Your task to perform on an android device: Open internet settings Image 0: 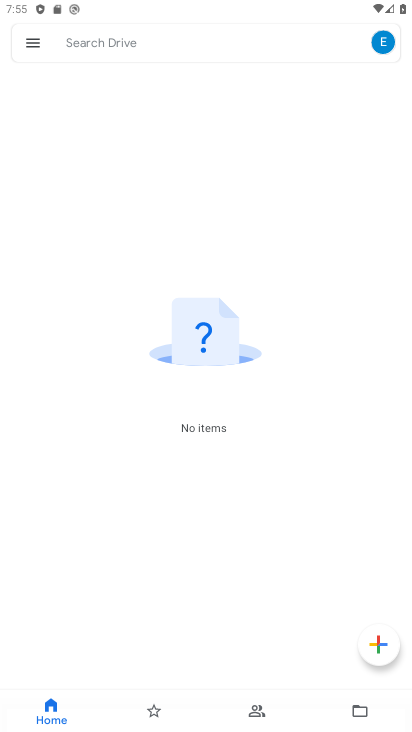
Step 0: press home button
Your task to perform on an android device: Open internet settings Image 1: 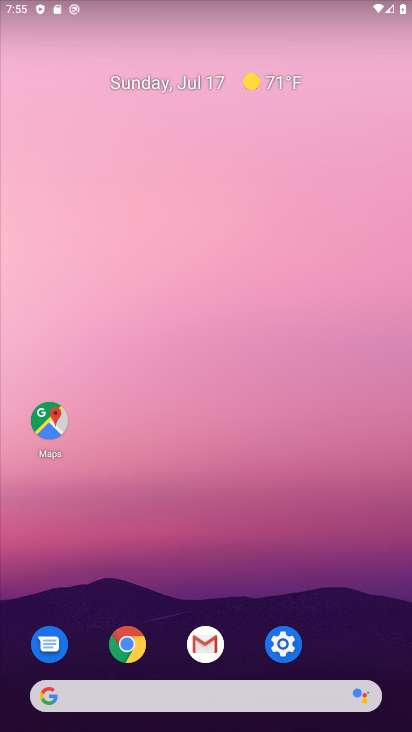
Step 1: click (283, 643)
Your task to perform on an android device: Open internet settings Image 2: 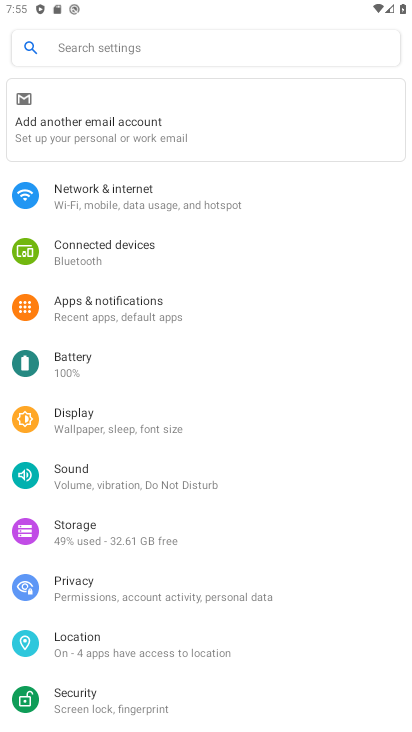
Step 2: click (190, 200)
Your task to perform on an android device: Open internet settings Image 3: 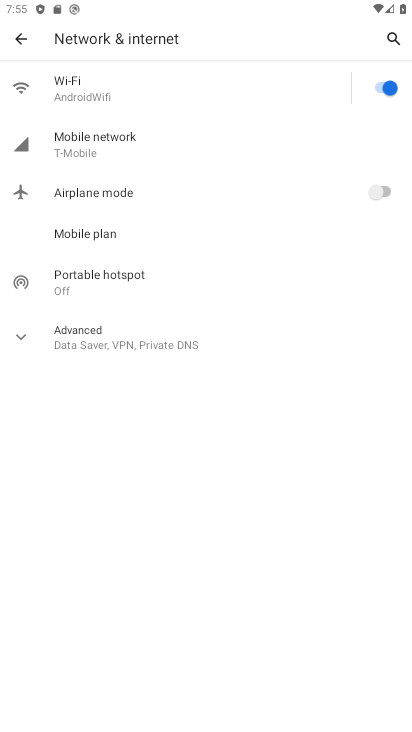
Step 3: task complete